Your task to perform on an android device: refresh tabs in the chrome app Image 0: 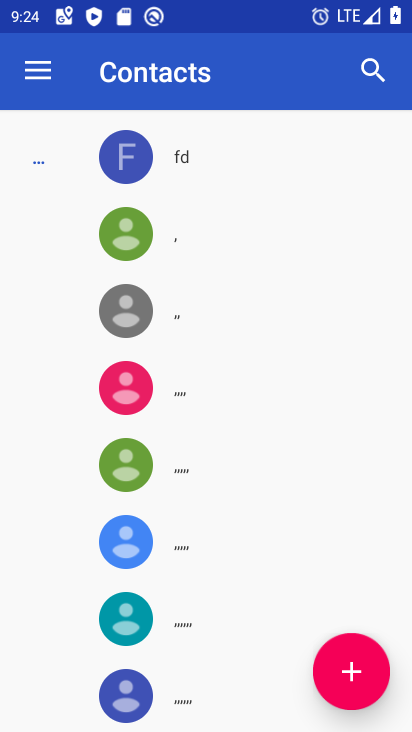
Step 0: press home button
Your task to perform on an android device: refresh tabs in the chrome app Image 1: 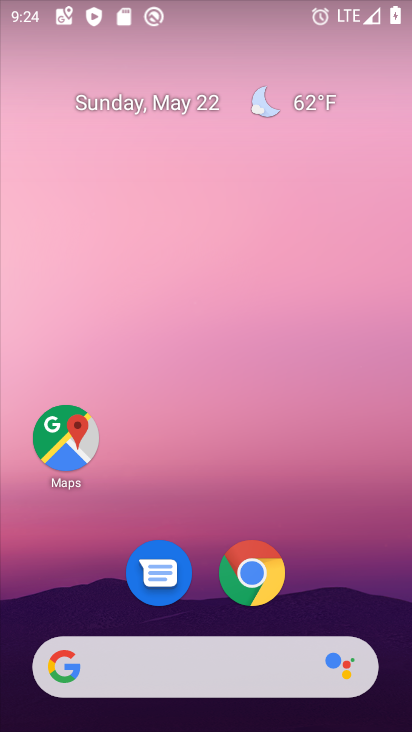
Step 1: drag from (350, 652) to (310, 69)
Your task to perform on an android device: refresh tabs in the chrome app Image 2: 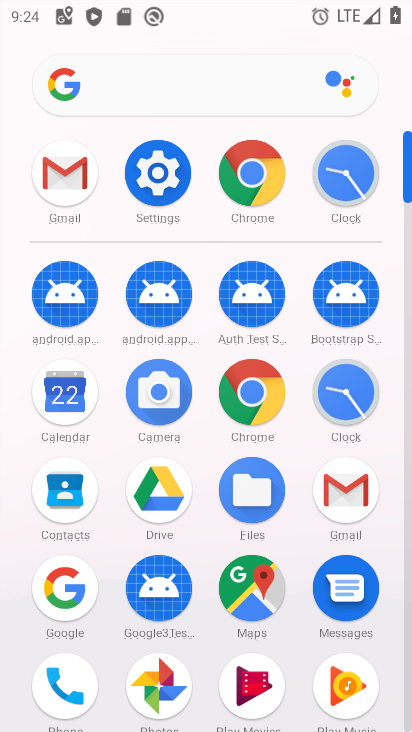
Step 2: click (253, 386)
Your task to perform on an android device: refresh tabs in the chrome app Image 3: 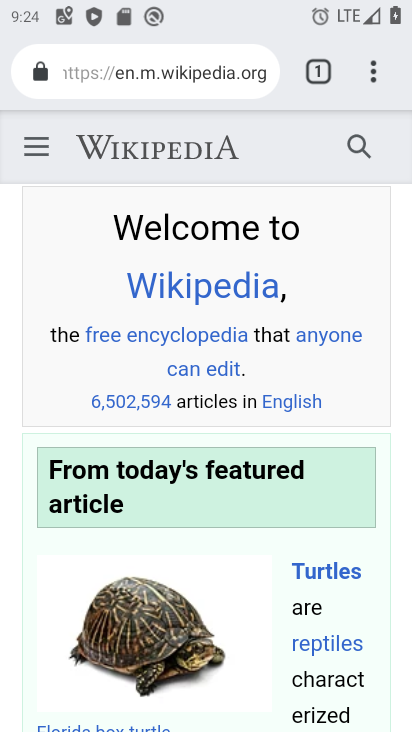
Step 3: drag from (373, 65) to (317, 115)
Your task to perform on an android device: refresh tabs in the chrome app Image 4: 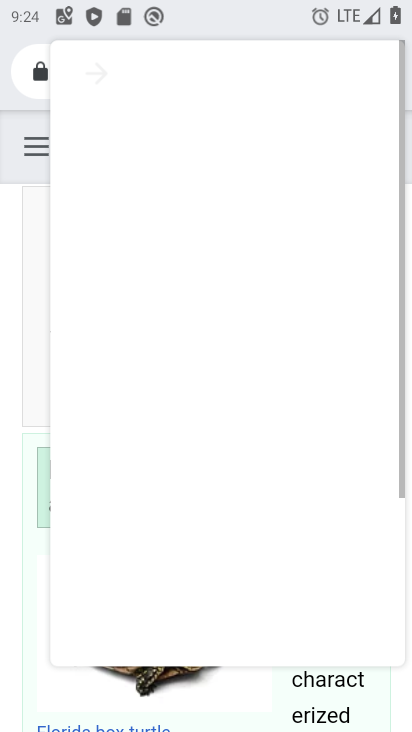
Step 4: drag from (284, 119) to (214, 102)
Your task to perform on an android device: refresh tabs in the chrome app Image 5: 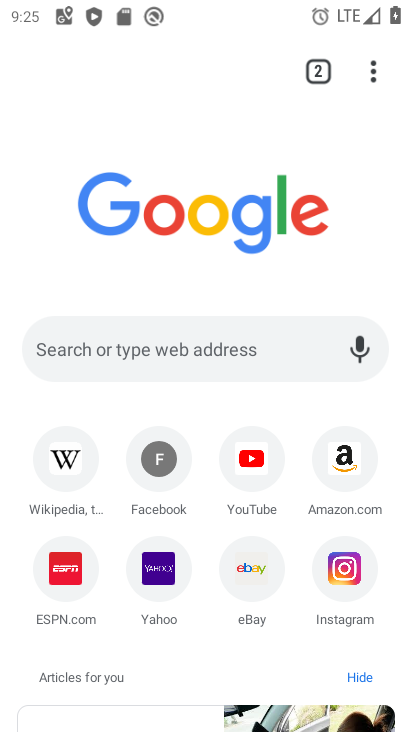
Step 5: click (374, 64)
Your task to perform on an android device: refresh tabs in the chrome app Image 6: 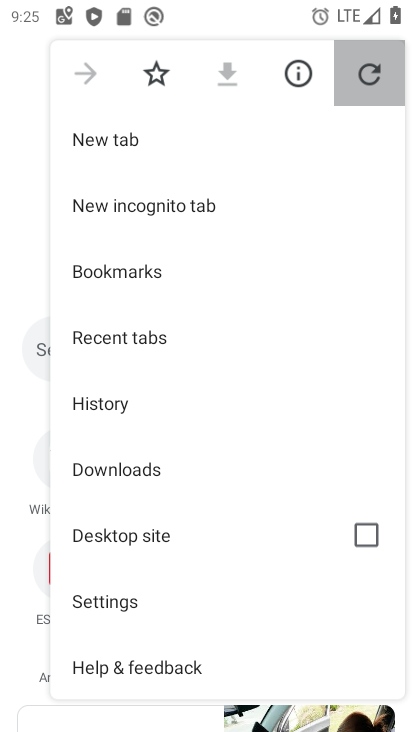
Step 6: click (357, 63)
Your task to perform on an android device: refresh tabs in the chrome app Image 7: 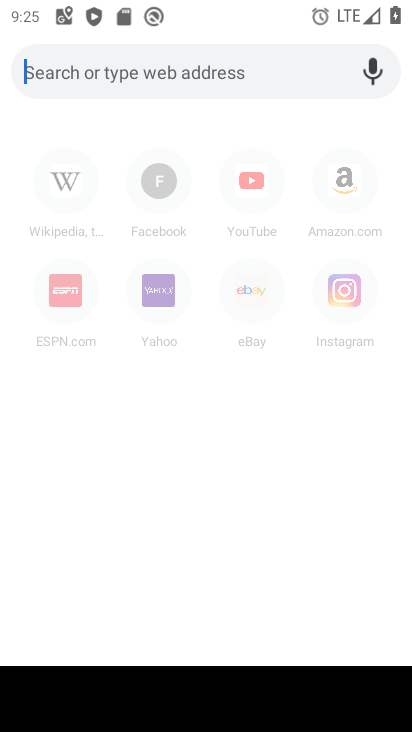
Step 7: press back button
Your task to perform on an android device: refresh tabs in the chrome app Image 8: 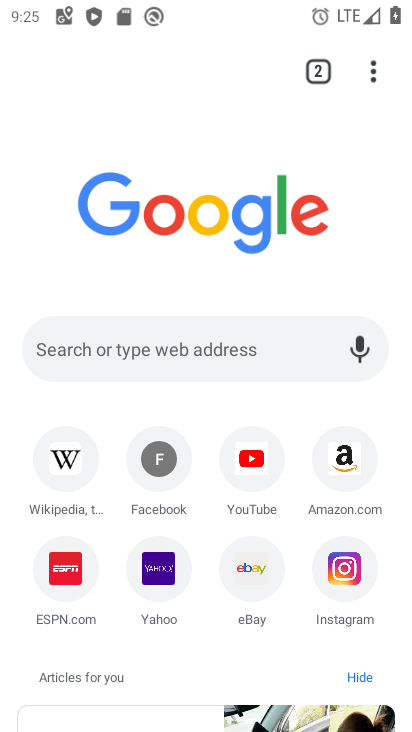
Step 8: click (375, 63)
Your task to perform on an android device: refresh tabs in the chrome app Image 9: 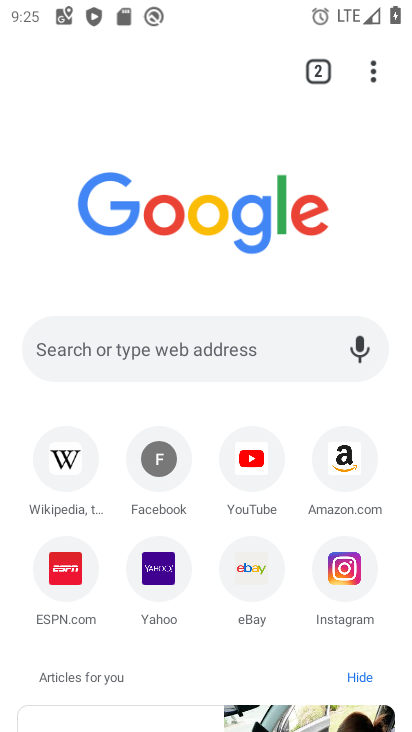
Step 9: drag from (368, 71) to (348, 141)
Your task to perform on an android device: refresh tabs in the chrome app Image 10: 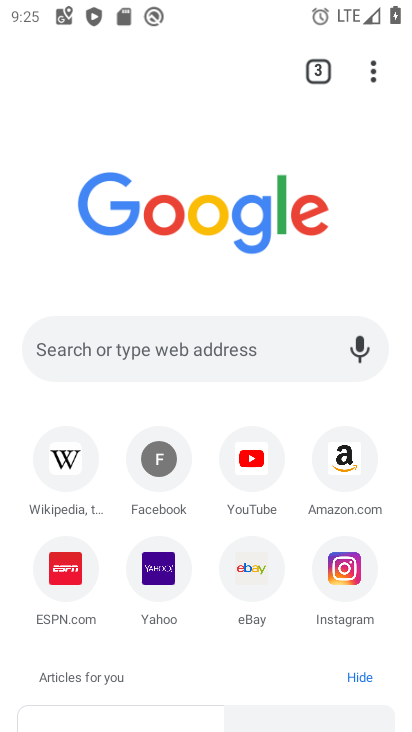
Step 10: click (370, 69)
Your task to perform on an android device: refresh tabs in the chrome app Image 11: 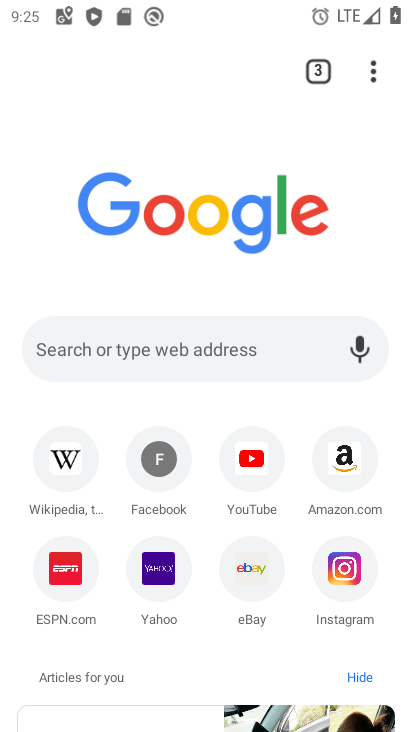
Step 11: task complete